Your task to perform on an android device: Open Youtube and go to the subscriptions tab Image 0: 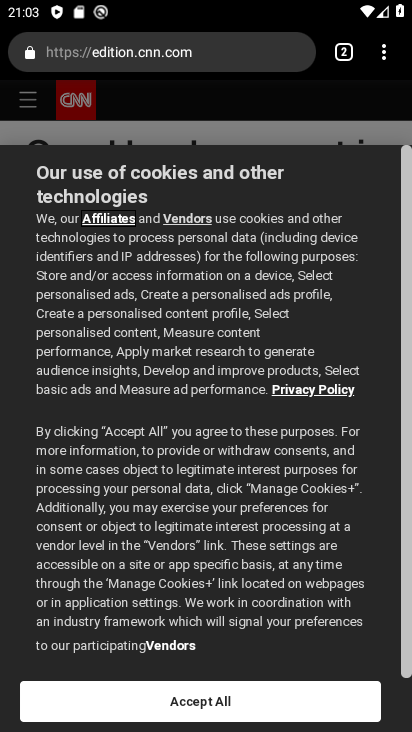
Step 0: press home button
Your task to perform on an android device: Open Youtube and go to the subscriptions tab Image 1: 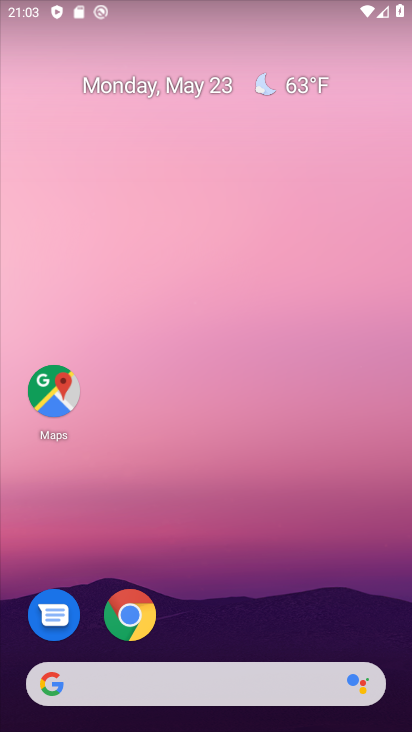
Step 1: drag from (212, 616) to (220, 132)
Your task to perform on an android device: Open Youtube and go to the subscriptions tab Image 2: 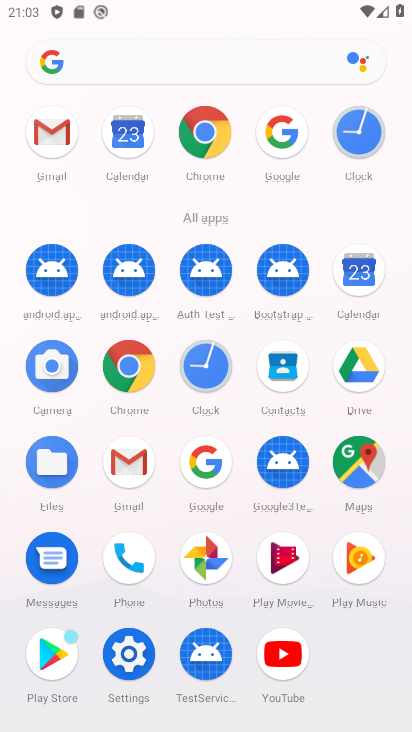
Step 2: drag from (247, 546) to (282, 69)
Your task to perform on an android device: Open Youtube and go to the subscriptions tab Image 3: 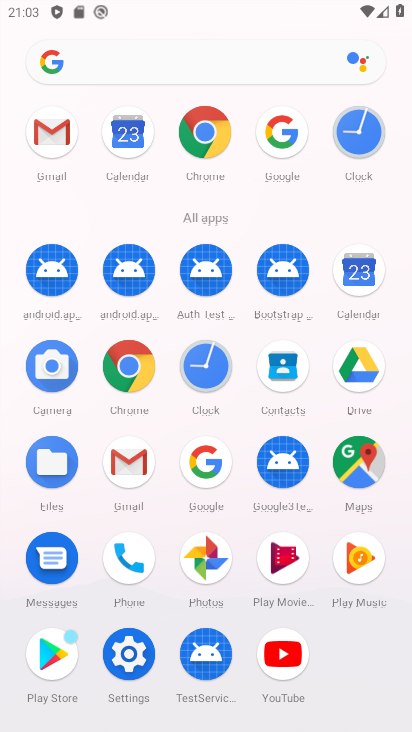
Step 3: click (285, 657)
Your task to perform on an android device: Open Youtube and go to the subscriptions tab Image 4: 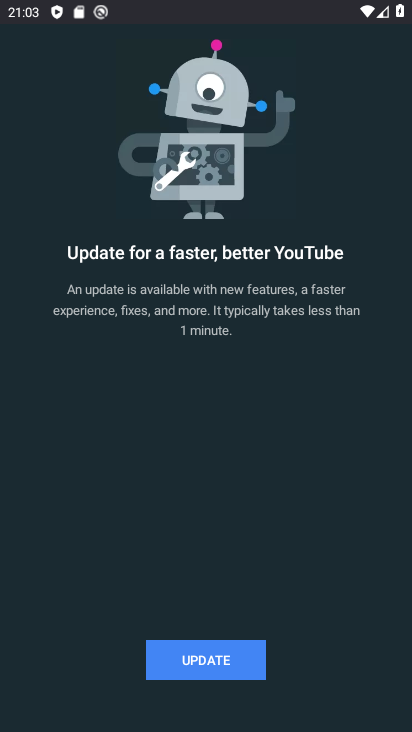
Step 4: click (211, 661)
Your task to perform on an android device: Open Youtube and go to the subscriptions tab Image 5: 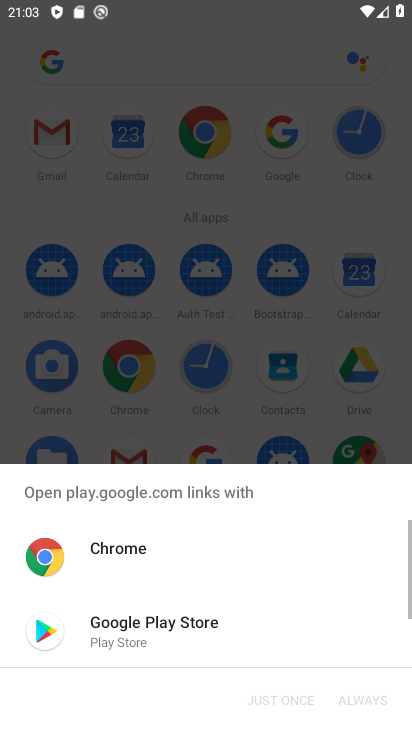
Step 5: click (127, 652)
Your task to perform on an android device: Open Youtube and go to the subscriptions tab Image 6: 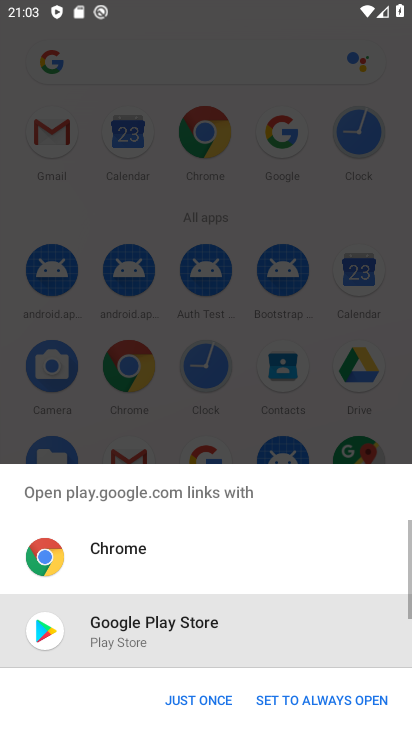
Step 6: click (214, 710)
Your task to perform on an android device: Open Youtube and go to the subscriptions tab Image 7: 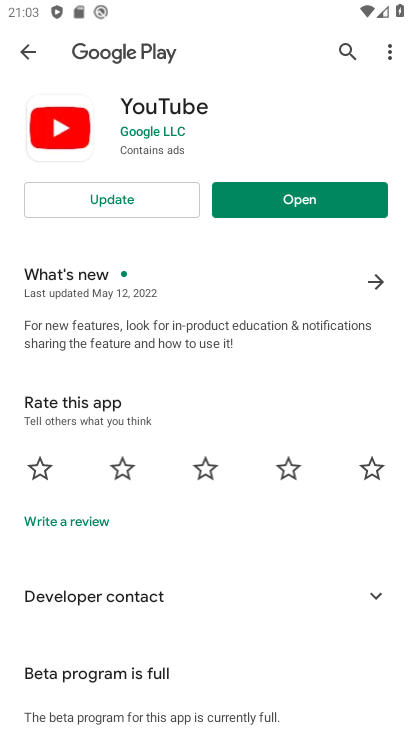
Step 7: click (288, 200)
Your task to perform on an android device: Open Youtube and go to the subscriptions tab Image 8: 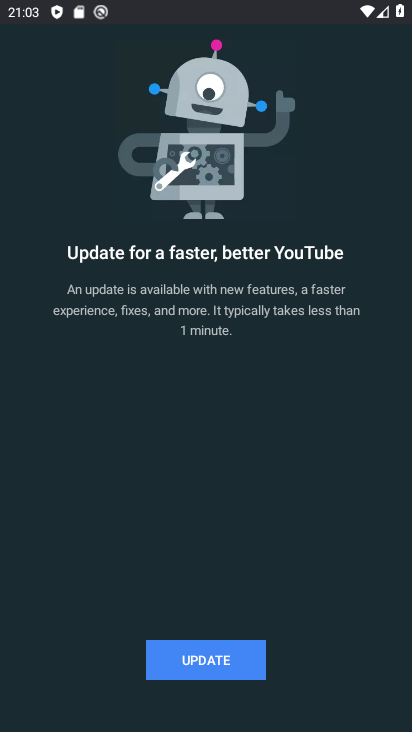
Step 8: click (203, 672)
Your task to perform on an android device: Open Youtube and go to the subscriptions tab Image 9: 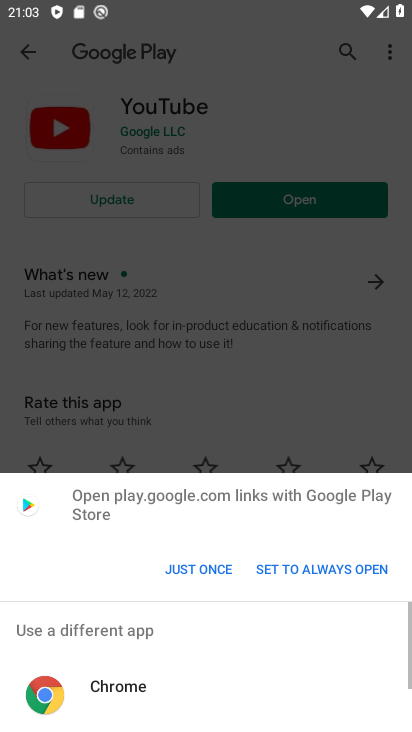
Step 9: click (206, 559)
Your task to perform on an android device: Open Youtube and go to the subscriptions tab Image 10: 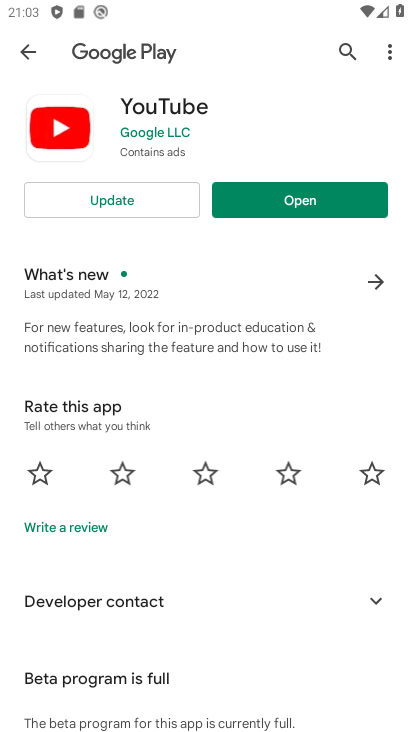
Step 10: click (113, 203)
Your task to perform on an android device: Open Youtube and go to the subscriptions tab Image 11: 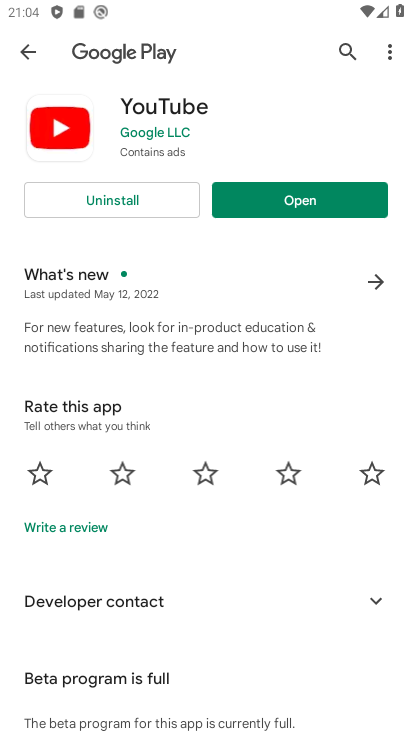
Step 11: click (295, 200)
Your task to perform on an android device: Open Youtube and go to the subscriptions tab Image 12: 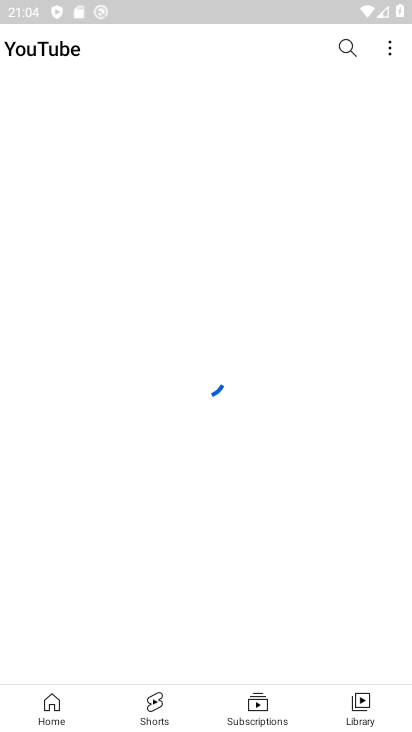
Step 12: click (268, 708)
Your task to perform on an android device: Open Youtube and go to the subscriptions tab Image 13: 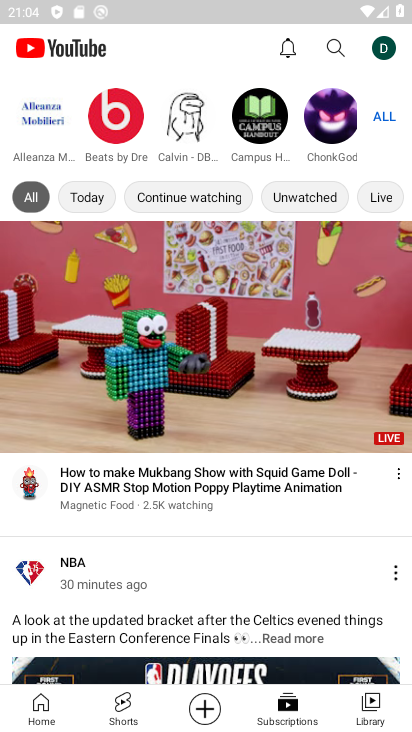
Step 13: task complete